Your task to perform on an android device: Open Youtube and go to the subscriptions tab Image 0: 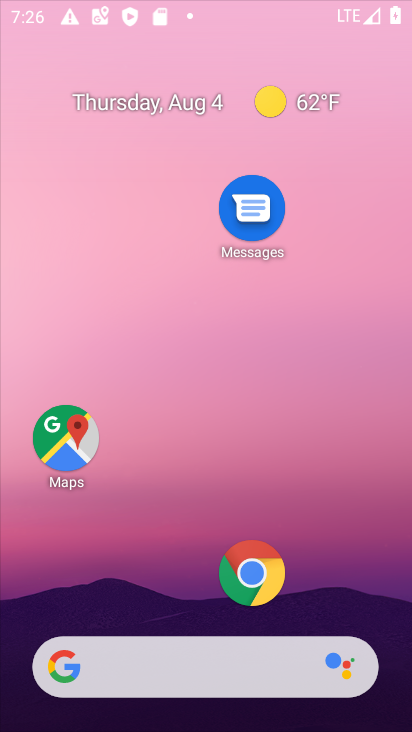
Step 0: press home button
Your task to perform on an android device: Open Youtube and go to the subscriptions tab Image 1: 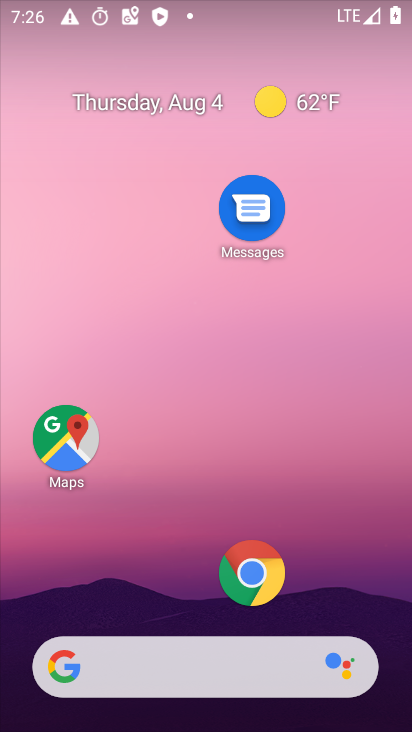
Step 1: drag from (187, 613) to (214, 179)
Your task to perform on an android device: Open Youtube and go to the subscriptions tab Image 2: 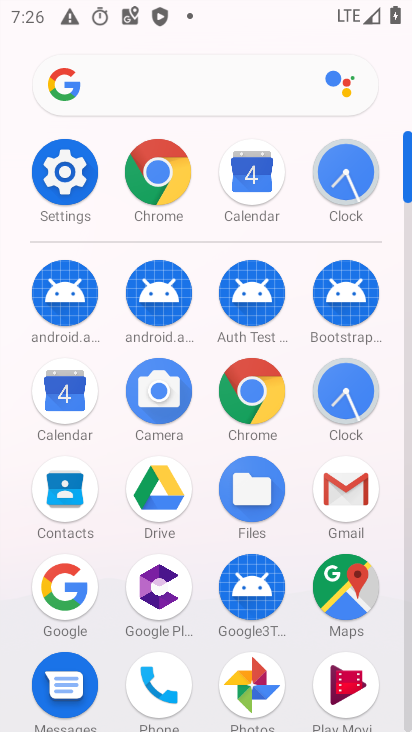
Step 2: drag from (294, 636) to (318, 200)
Your task to perform on an android device: Open Youtube and go to the subscriptions tab Image 3: 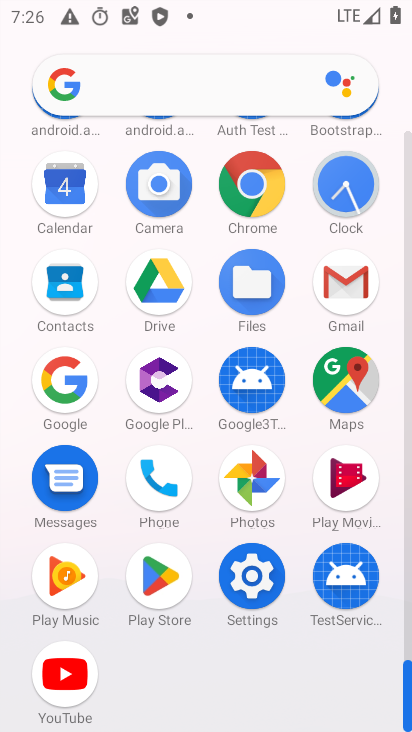
Step 3: click (73, 656)
Your task to perform on an android device: Open Youtube and go to the subscriptions tab Image 4: 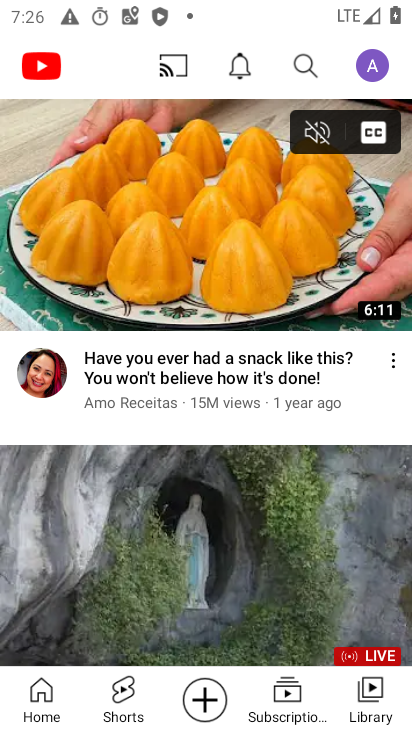
Step 4: click (290, 684)
Your task to perform on an android device: Open Youtube and go to the subscriptions tab Image 5: 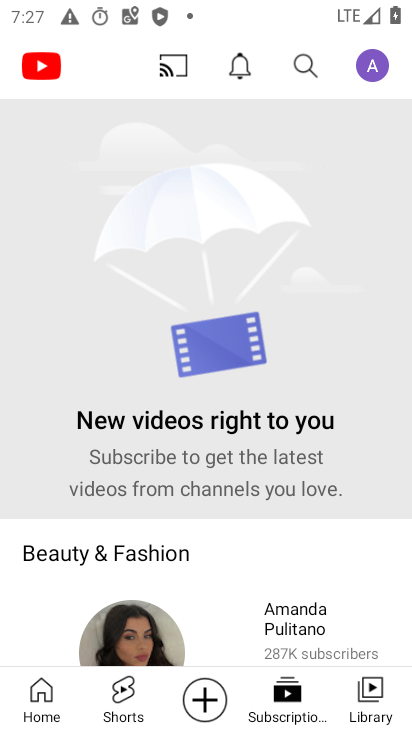
Step 5: task complete